Your task to perform on an android device: Add "bose soundlink" to the cart on target Image 0: 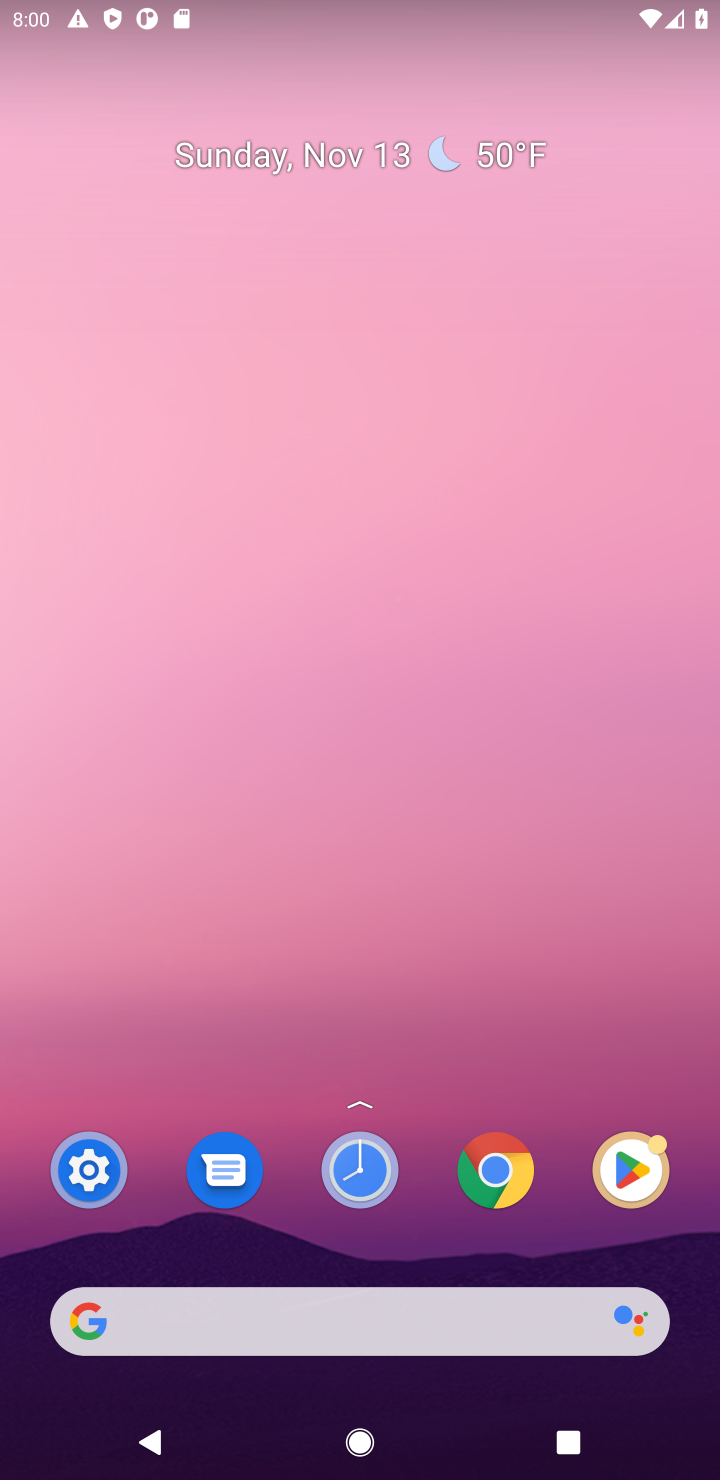
Step 0: click (229, 1339)
Your task to perform on an android device: Add "bose soundlink" to the cart on target Image 1: 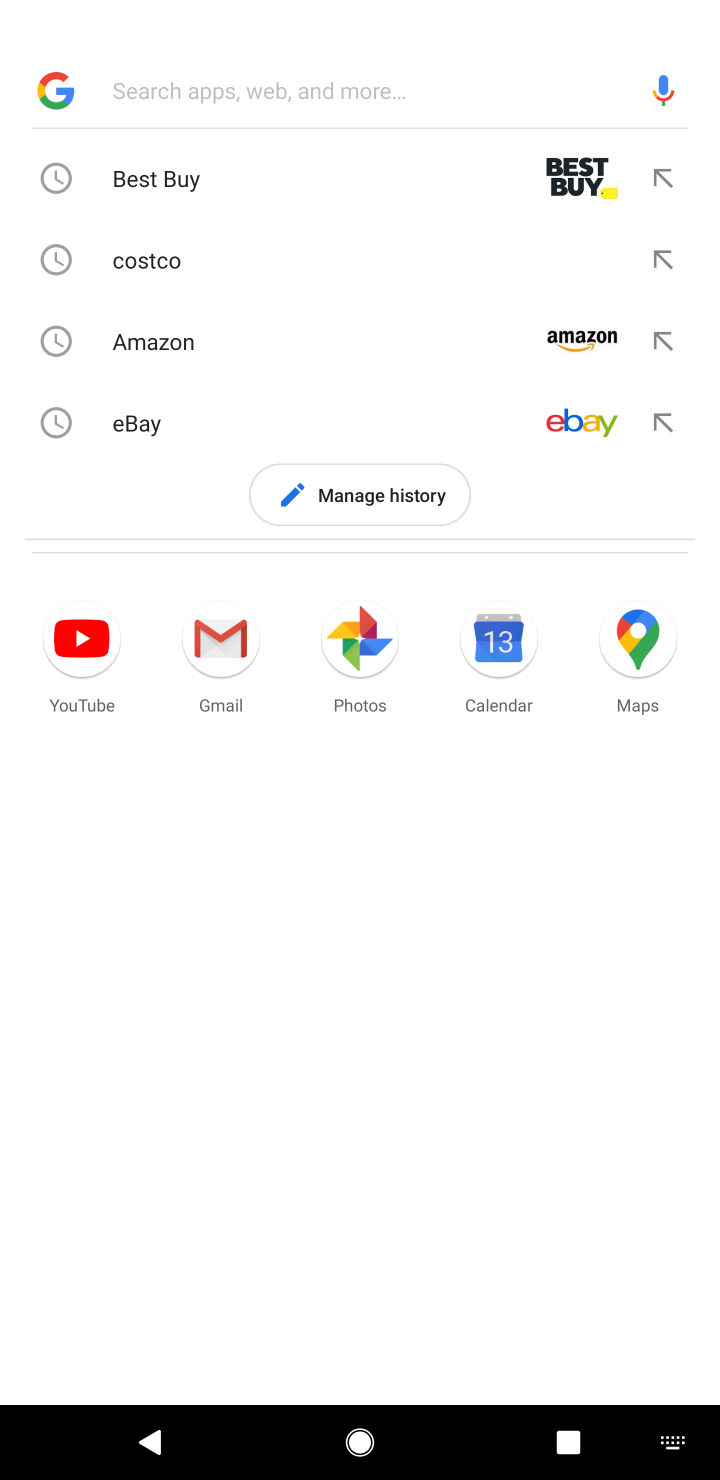
Step 1: type "bose soundlink"
Your task to perform on an android device: Add "bose soundlink" to the cart on target Image 2: 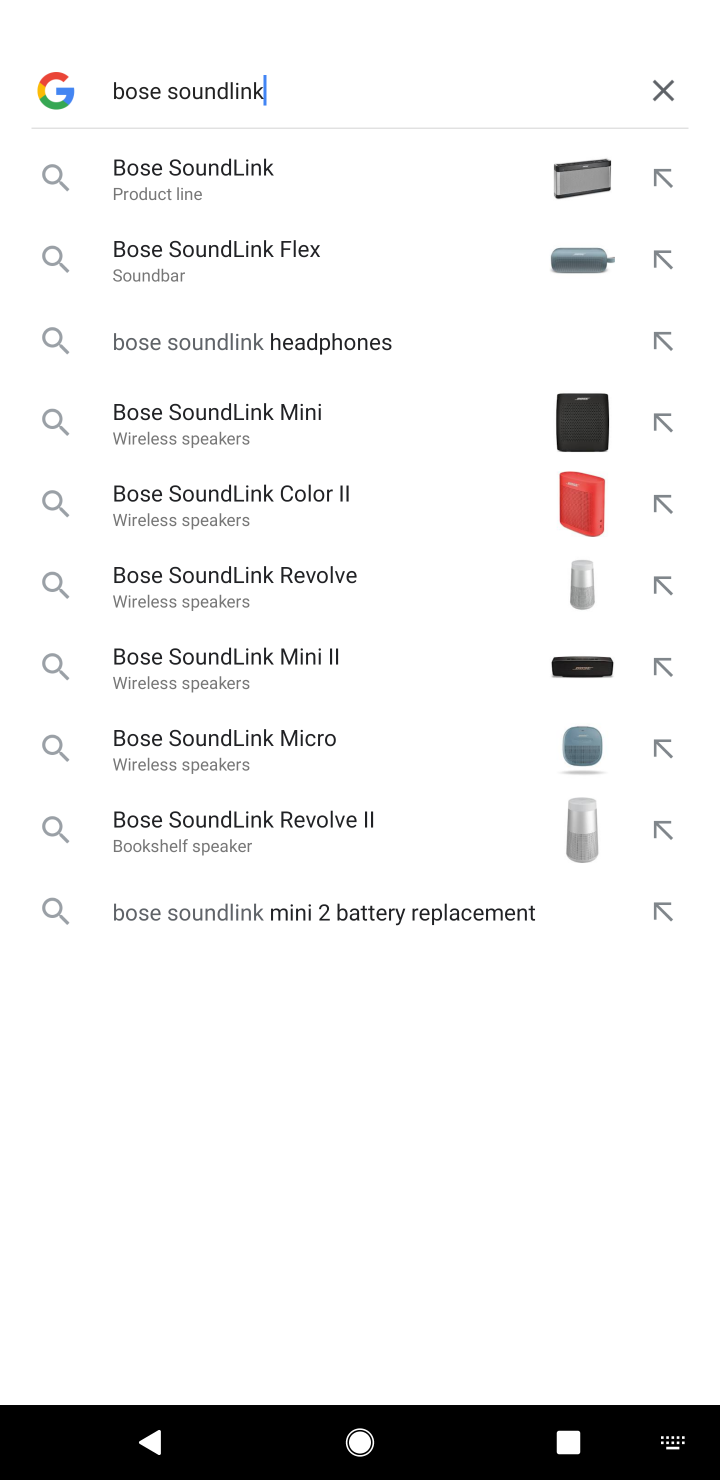
Step 2: click (180, 170)
Your task to perform on an android device: Add "bose soundlink" to the cart on target Image 3: 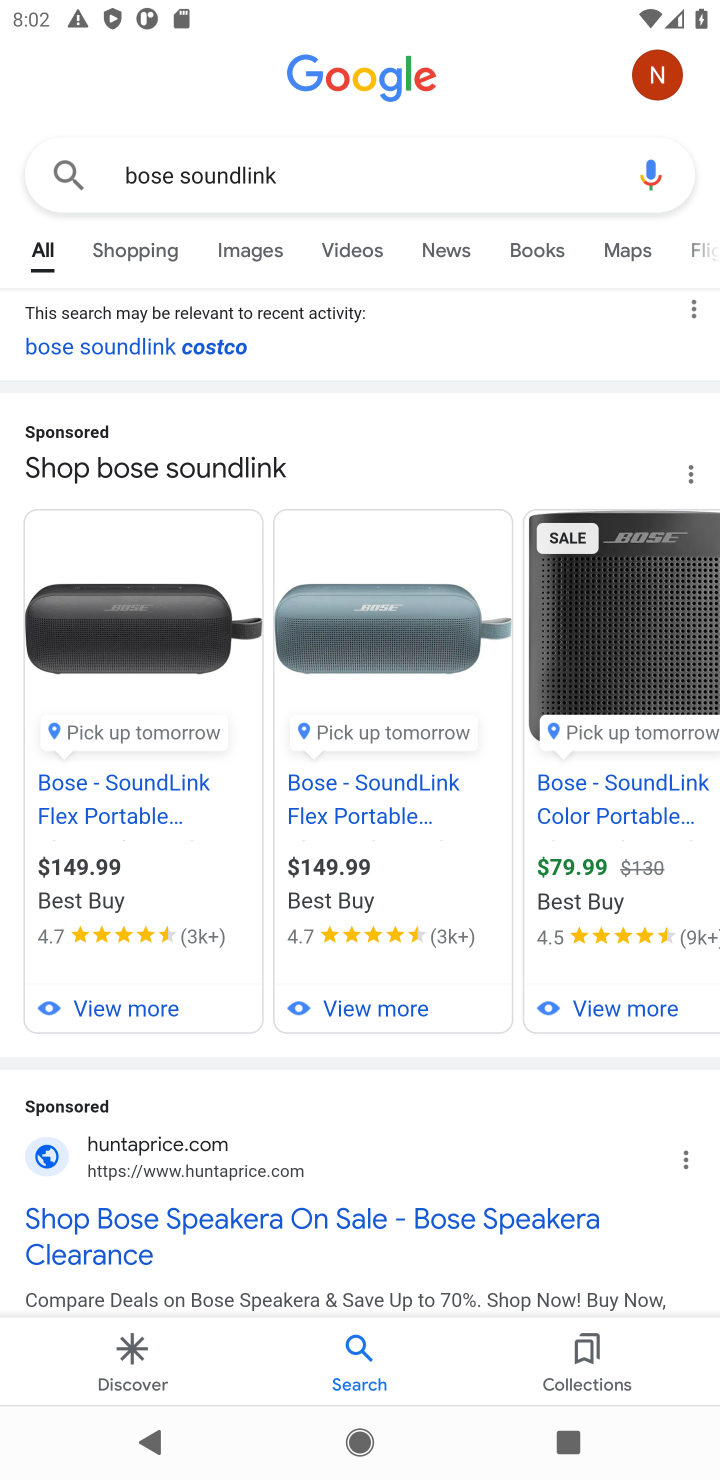
Step 3: task complete